Your task to perform on an android device: Search for vegetarian restaurants on Maps Image 0: 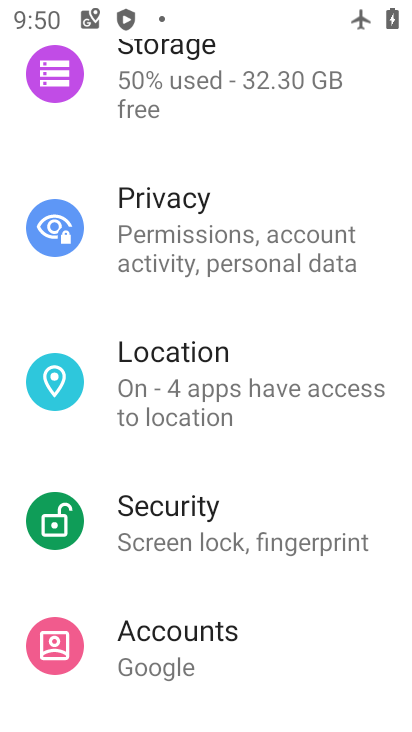
Step 0: press home button
Your task to perform on an android device: Search for vegetarian restaurants on Maps Image 1: 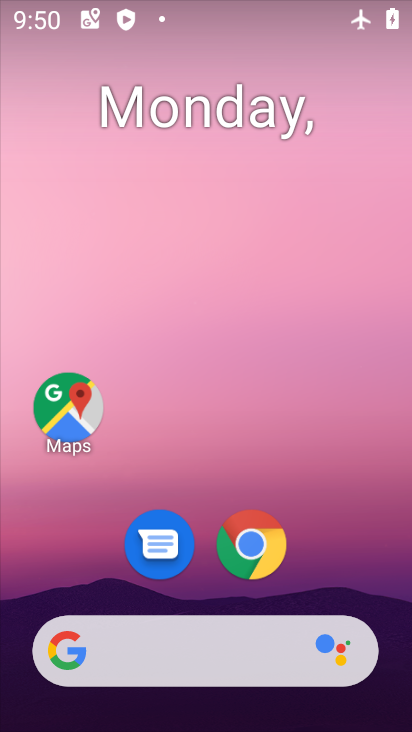
Step 1: click (57, 413)
Your task to perform on an android device: Search for vegetarian restaurants on Maps Image 2: 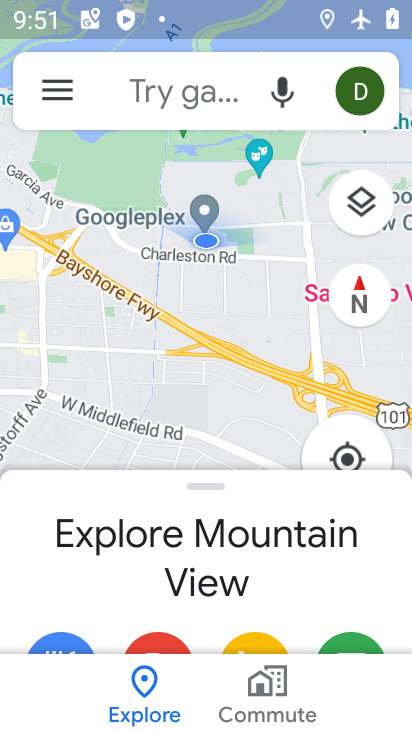
Step 2: click (170, 88)
Your task to perform on an android device: Search for vegetarian restaurants on Maps Image 3: 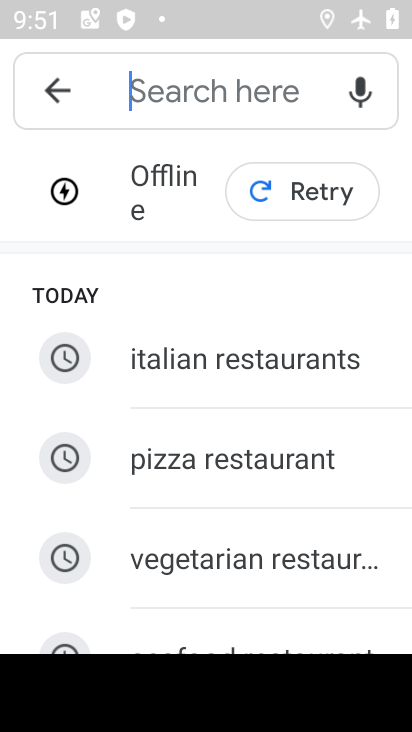
Step 3: click (210, 559)
Your task to perform on an android device: Search for vegetarian restaurants on Maps Image 4: 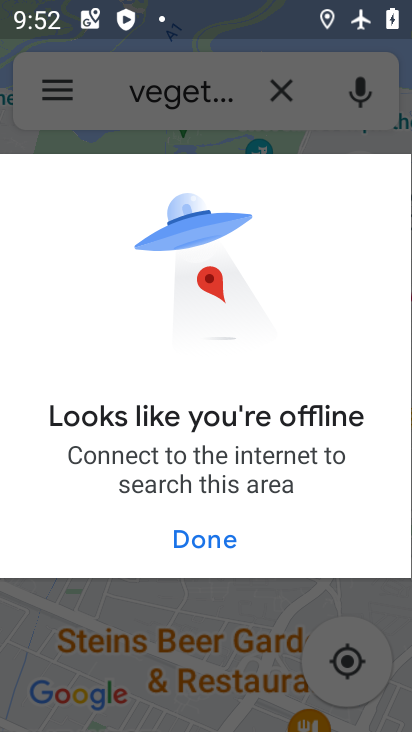
Step 4: click (207, 538)
Your task to perform on an android device: Search for vegetarian restaurants on Maps Image 5: 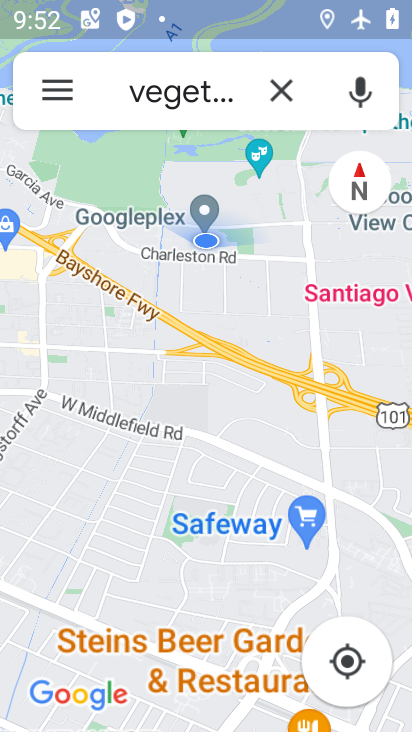
Step 5: task complete